Your task to perform on an android device: Go to eBay Image 0: 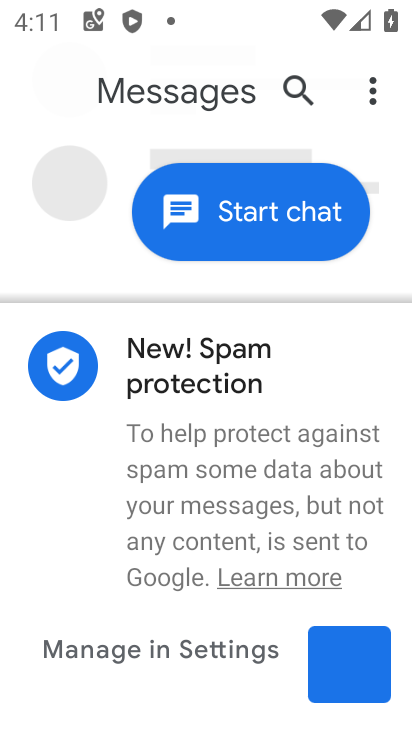
Step 0: press back button
Your task to perform on an android device: Go to eBay Image 1: 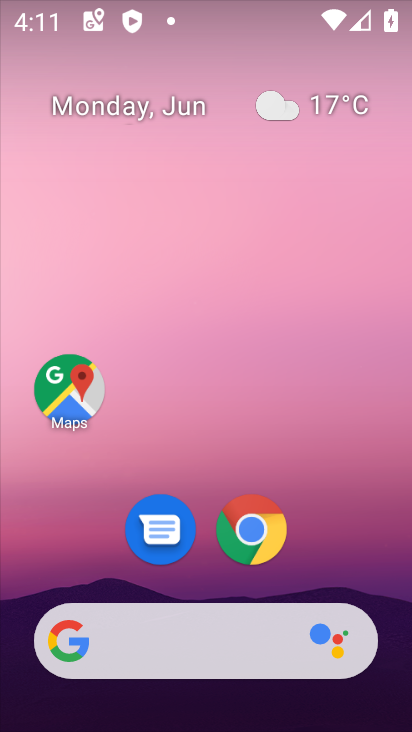
Step 1: click (251, 527)
Your task to perform on an android device: Go to eBay Image 2: 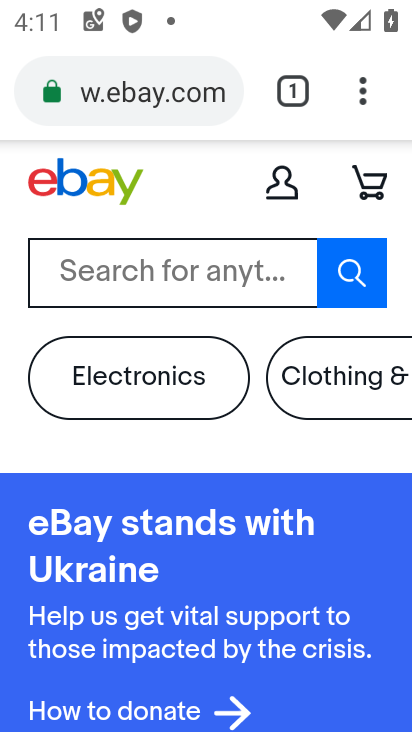
Step 2: drag from (211, 521) to (283, 301)
Your task to perform on an android device: Go to eBay Image 3: 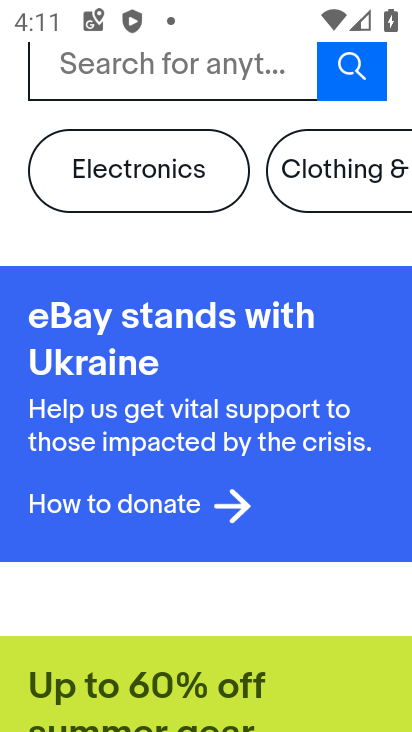
Step 3: click (386, 413)
Your task to perform on an android device: Go to eBay Image 4: 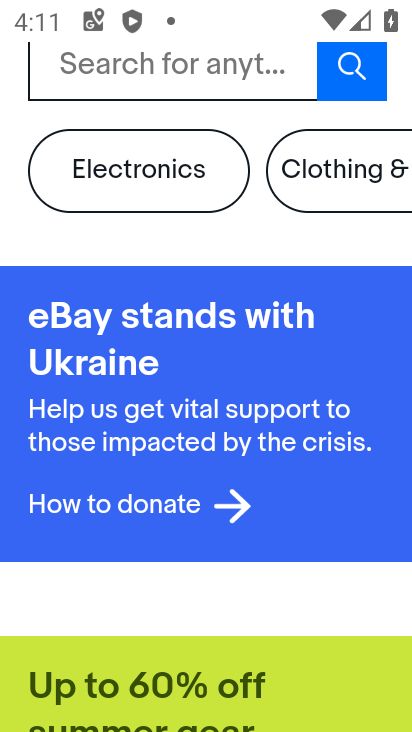
Step 4: task complete